Your task to perform on an android device: turn on sleep mode Image 0: 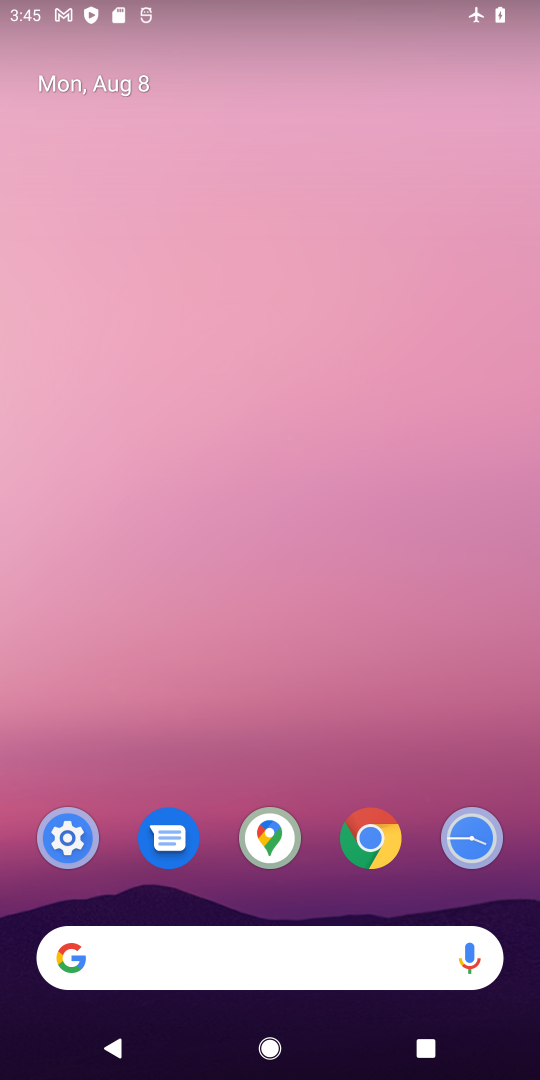
Step 0: drag from (311, 959) to (363, 524)
Your task to perform on an android device: turn on sleep mode Image 1: 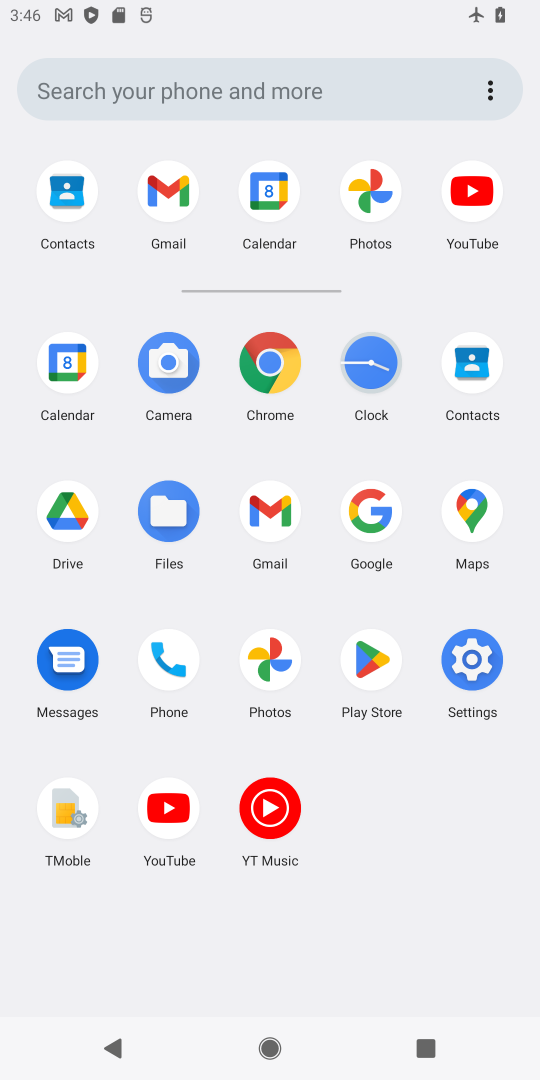
Step 1: click (466, 659)
Your task to perform on an android device: turn on sleep mode Image 2: 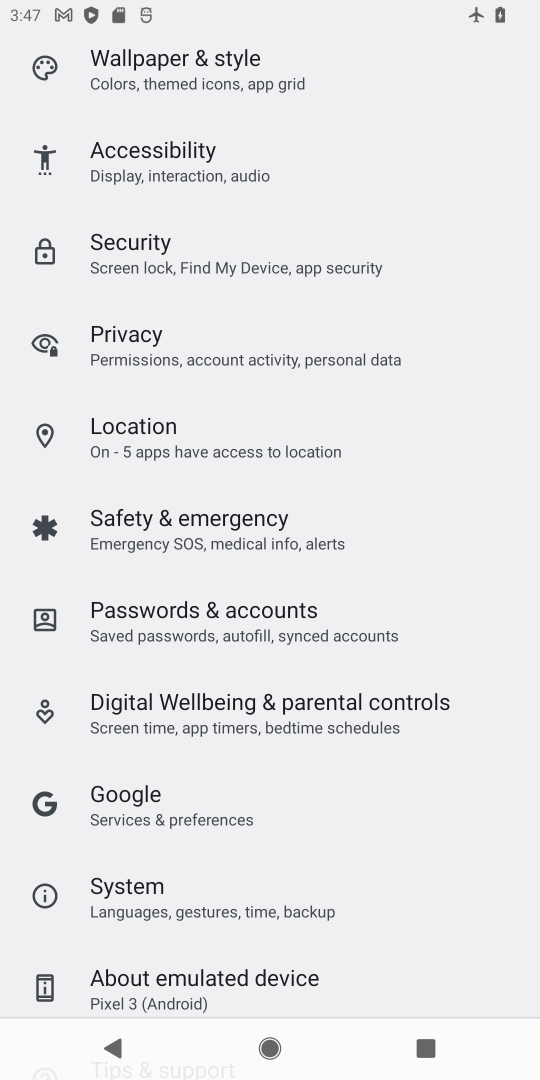
Step 2: drag from (235, 244) to (243, 448)
Your task to perform on an android device: turn on sleep mode Image 3: 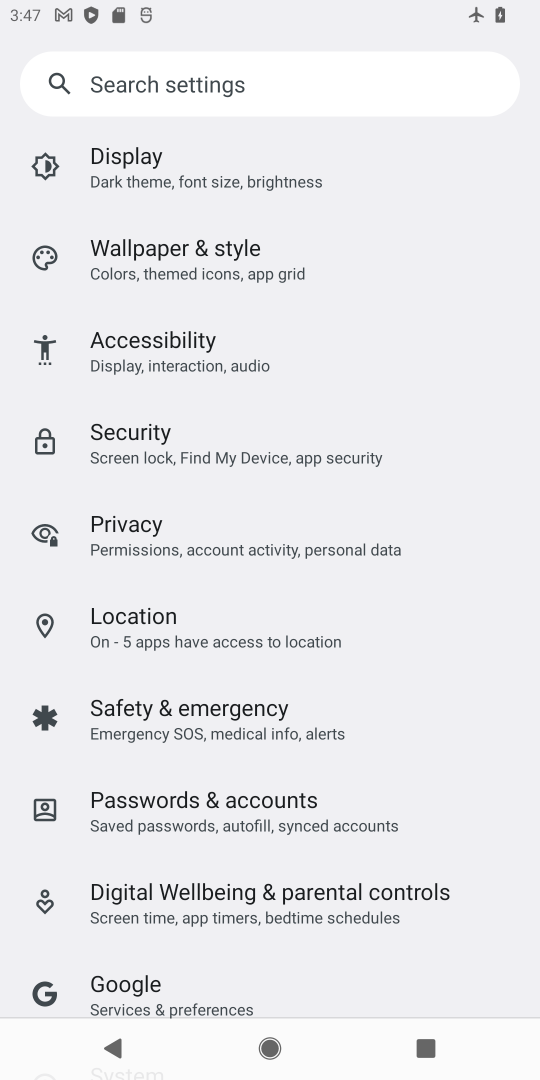
Step 3: drag from (245, 342) to (273, 529)
Your task to perform on an android device: turn on sleep mode Image 4: 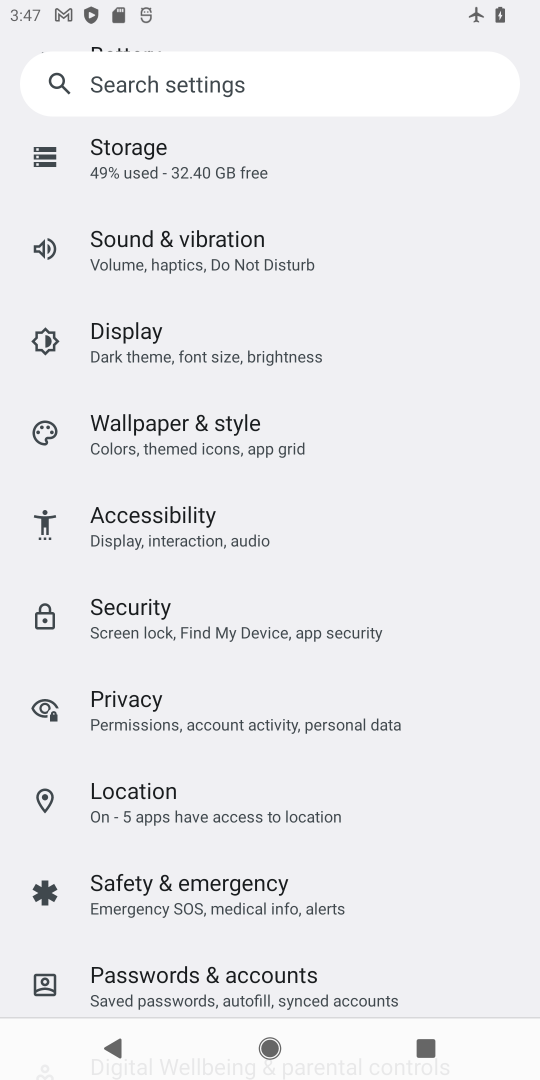
Step 4: click (236, 369)
Your task to perform on an android device: turn on sleep mode Image 5: 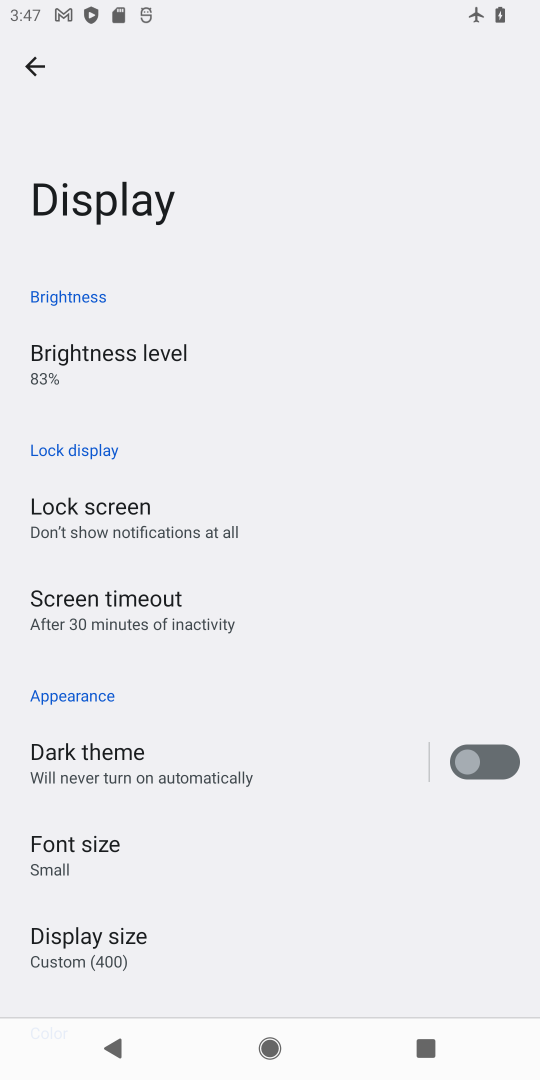
Step 5: drag from (200, 653) to (291, 501)
Your task to perform on an android device: turn on sleep mode Image 6: 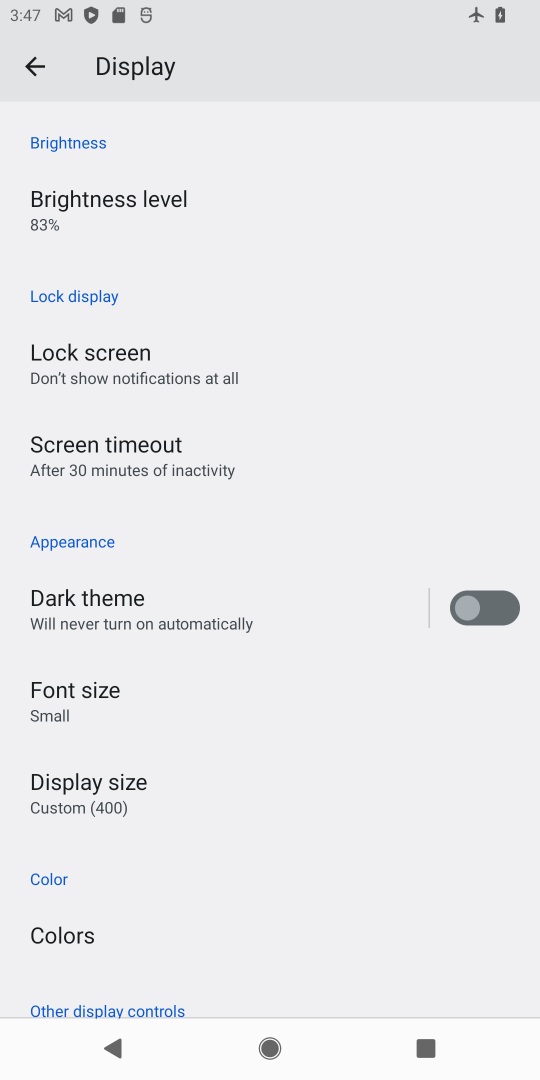
Step 6: drag from (212, 821) to (285, 628)
Your task to perform on an android device: turn on sleep mode Image 7: 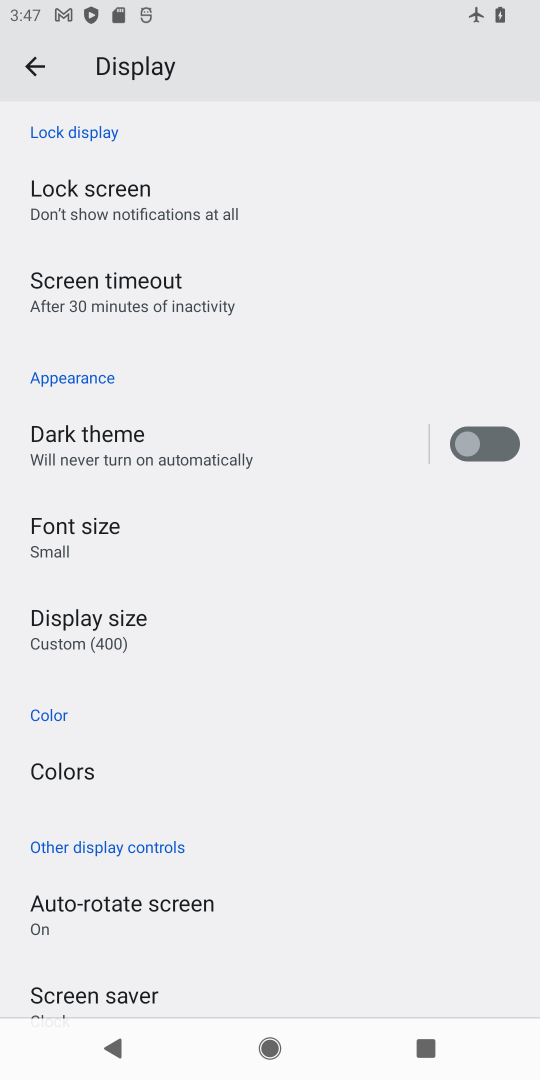
Step 7: drag from (247, 898) to (301, 732)
Your task to perform on an android device: turn on sleep mode Image 8: 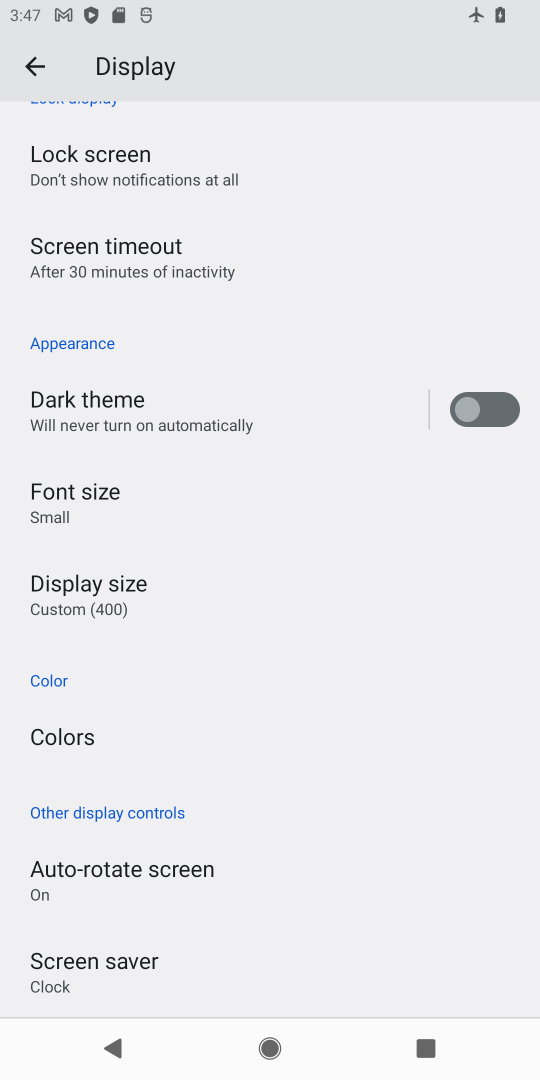
Step 8: drag from (228, 602) to (233, 776)
Your task to perform on an android device: turn on sleep mode Image 9: 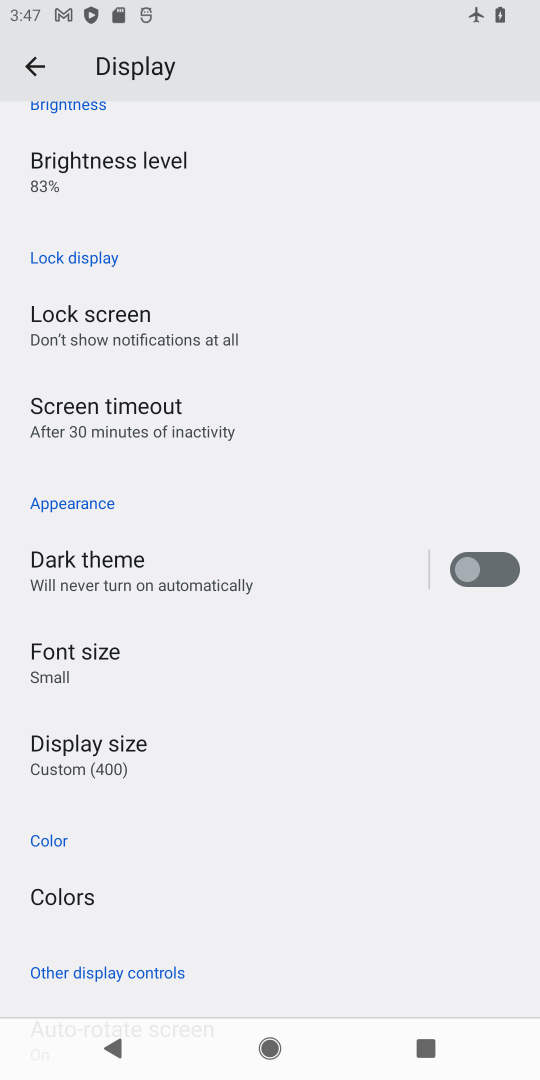
Step 9: drag from (232, 506) to (247, 685)
Your task to perform on an android device: turn on sleep mode Image 10: 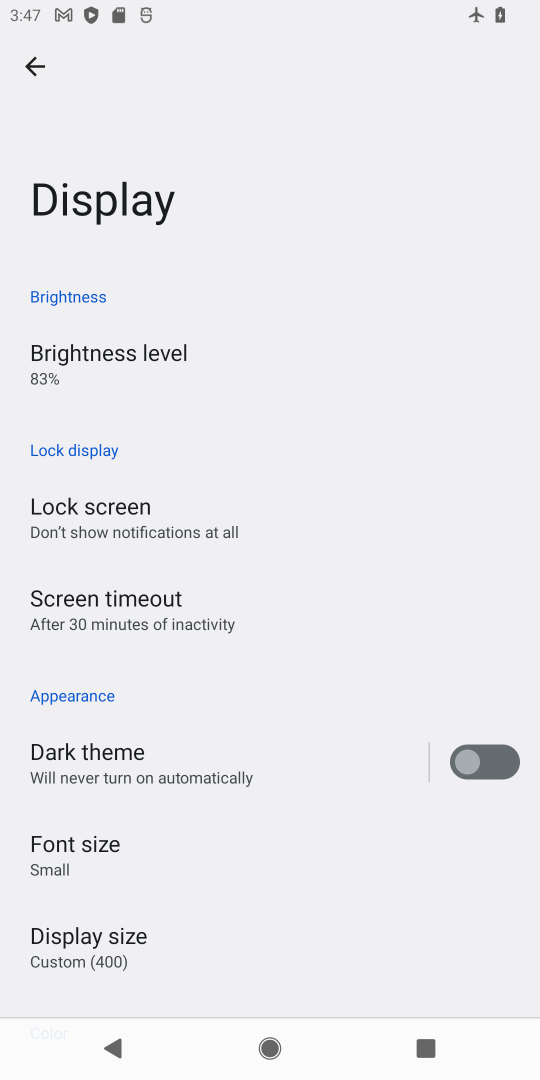
Step 10: press back button
Your task to perform on an android device: turn on sleep mode Image 11: 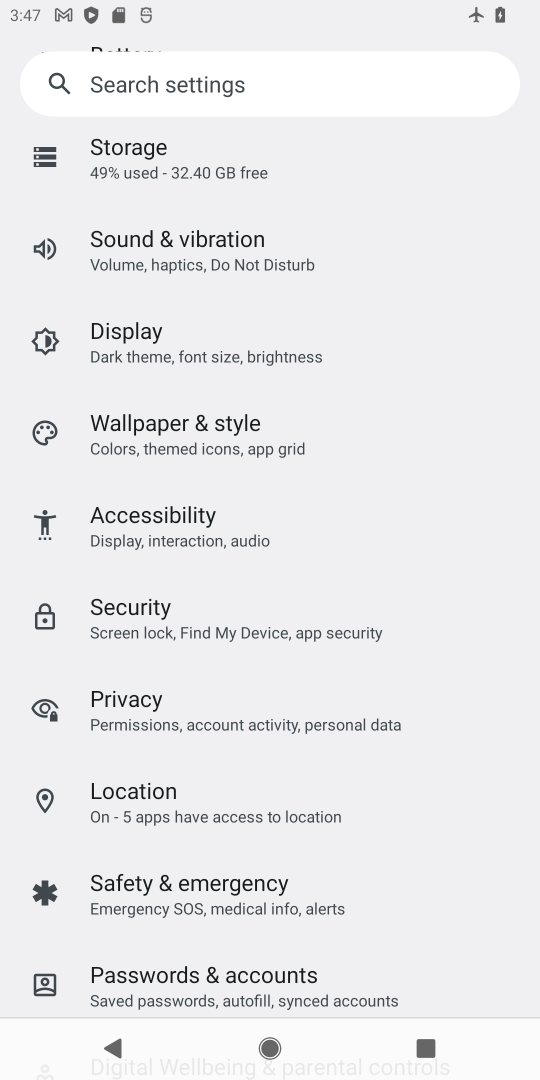
Step 11: drag from (243, 334) to (244, 511)
Your task to perform on an android device: turn on sleep mode Image 12: 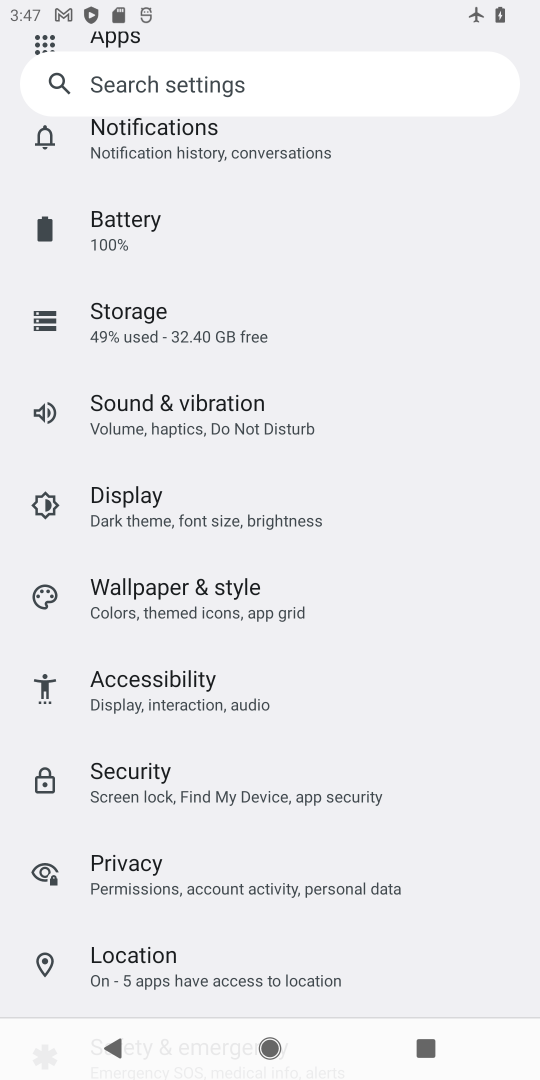
Step 12: drag from (227, 321) to (265, 500)
Your task to perform on an android device: turn on sleep mode Image 13: 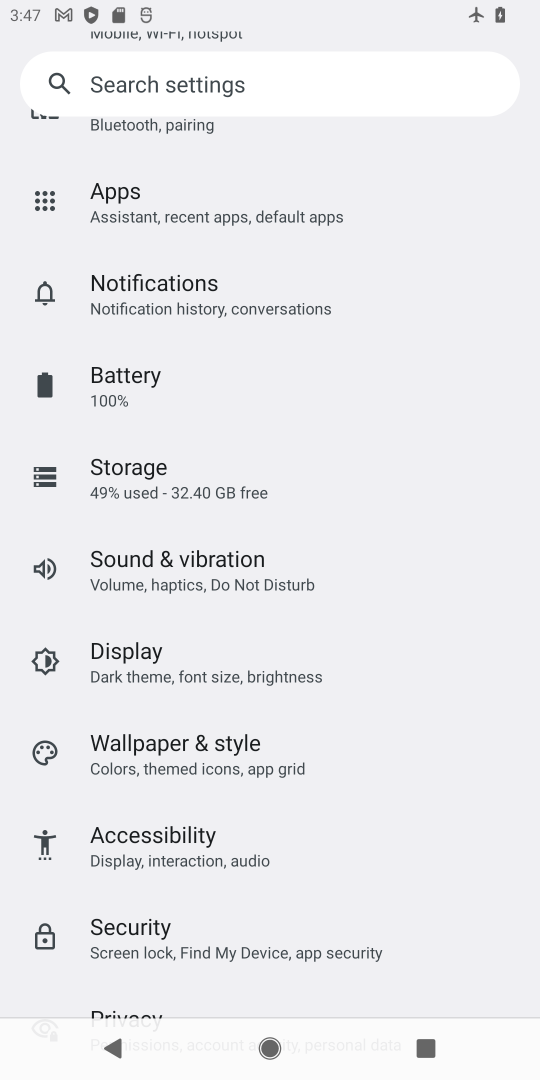
Step 13: drag from (245, 393) to (250, 572)
Your task to perform on an android device: turn on sleep mode Image 14: 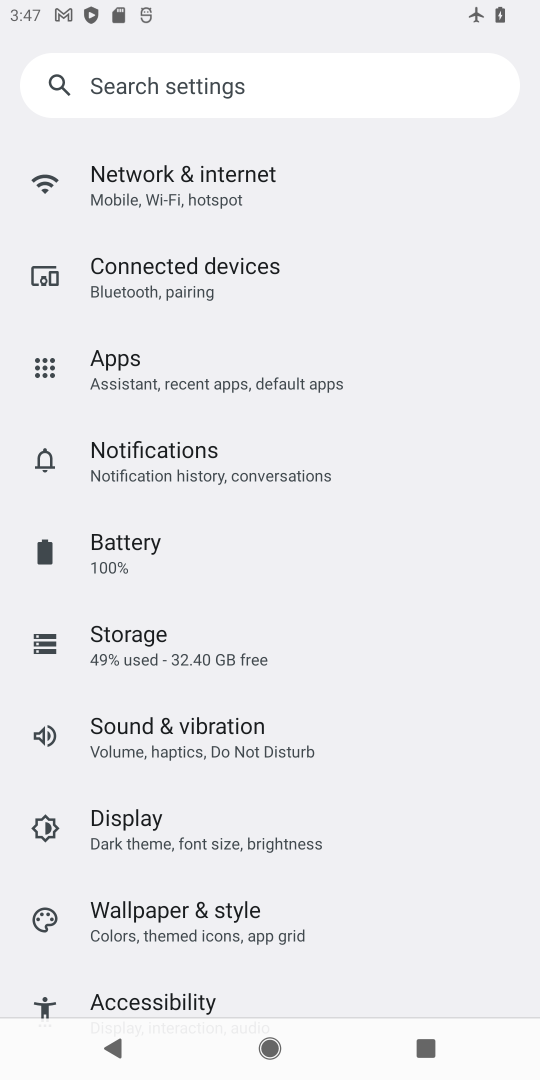
Step 14: drag from (223, 954) to (268, 805)
Your task to perform on an android device: turn on sleep mode Image 15: 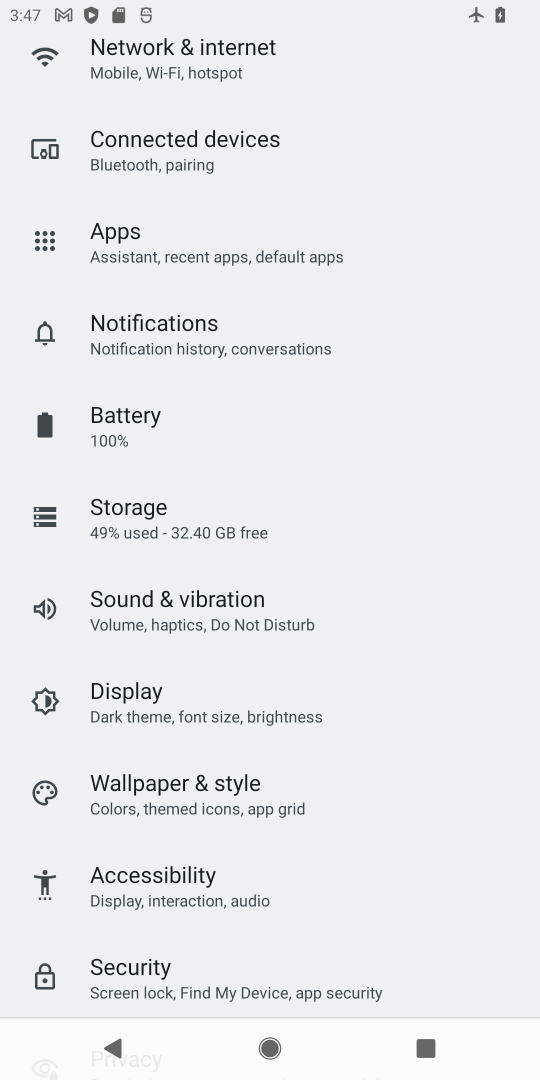
Step 15: click (232, 902)
Your task to perform on an android device: turn on sleep mode Image 16: 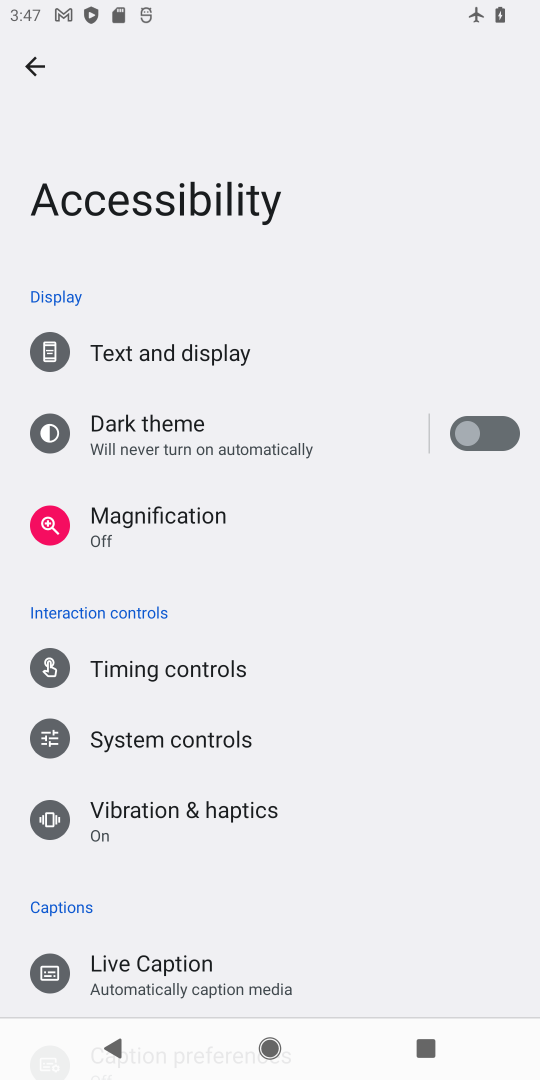
Step 16: task complete